Your task to perform on an android device: Go to Yahoo.com Image 0: 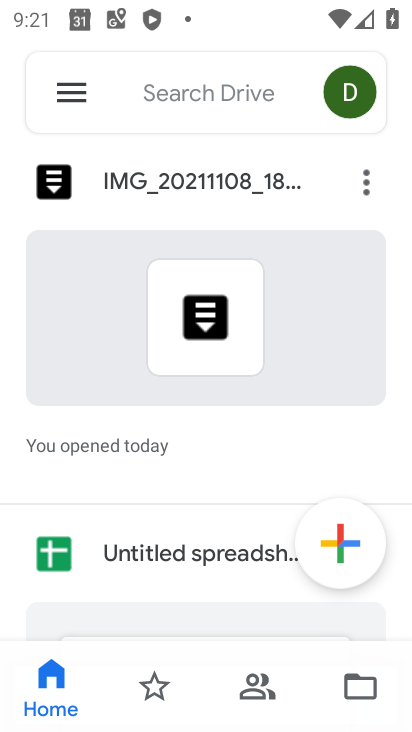
Step 0: press home button
Your task to perform on an android device: Go to Yahoo.com Image 1: 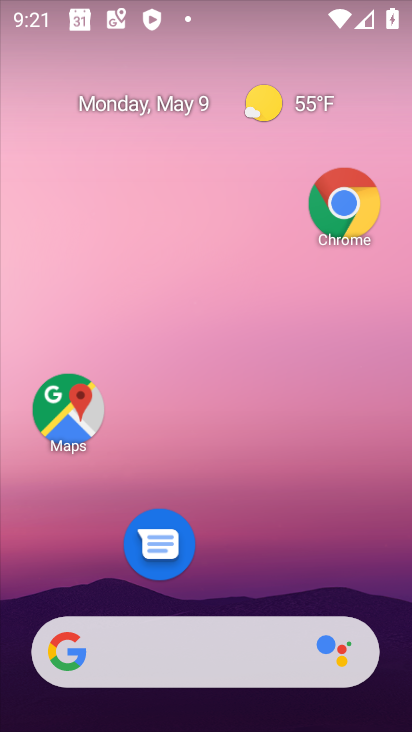
Step 1: click (327, 230)
Your task to perform on an android device: Go to Yahoo.com Image 2: 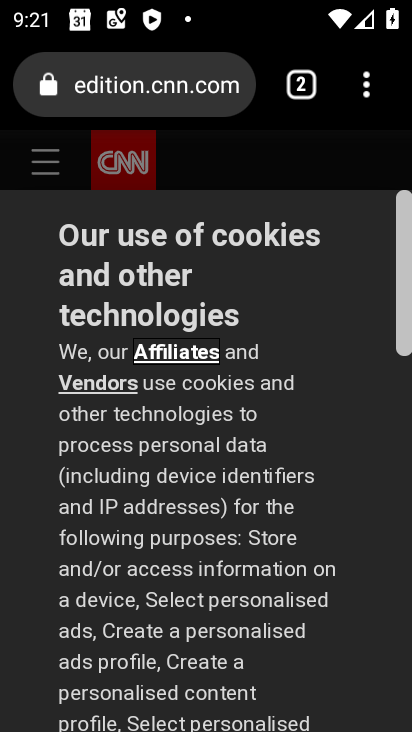
Step 2: click (320, 87)
Your task to perform on an android device: Go to Yahoo.com Image 3: 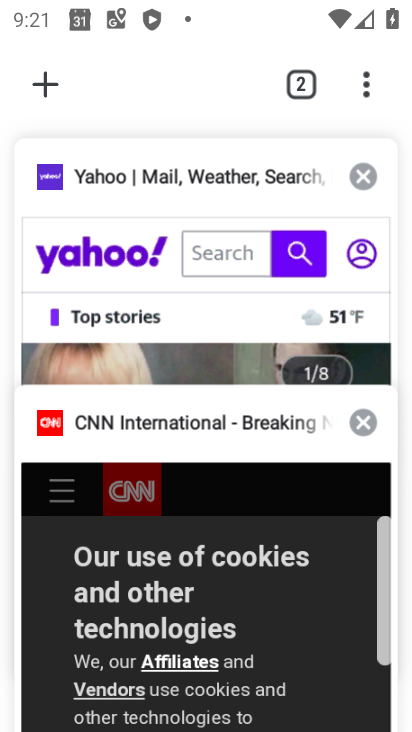
Step 3: click (107, 239)
Your task to perform on an android device: Go to Yahoo.com Image 4: 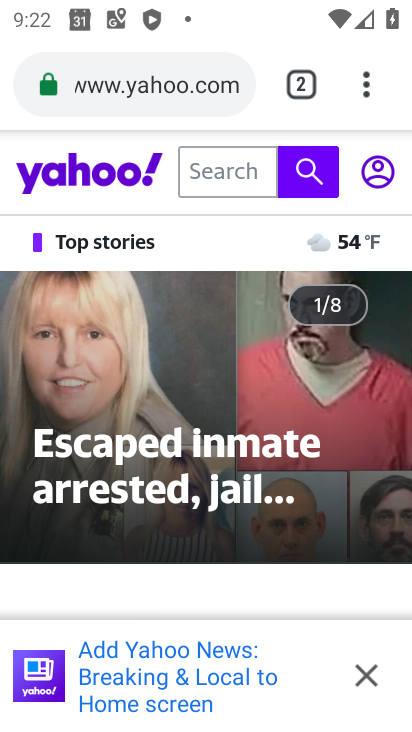
Step 4: task complete